Your task to perform on an android device: add a contact Image 0: 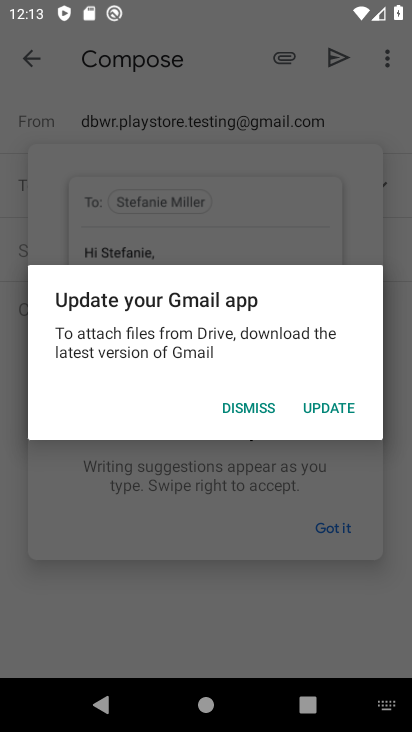
Step 0: press back button
Your task to perform on an android device: add a contact Image 1: 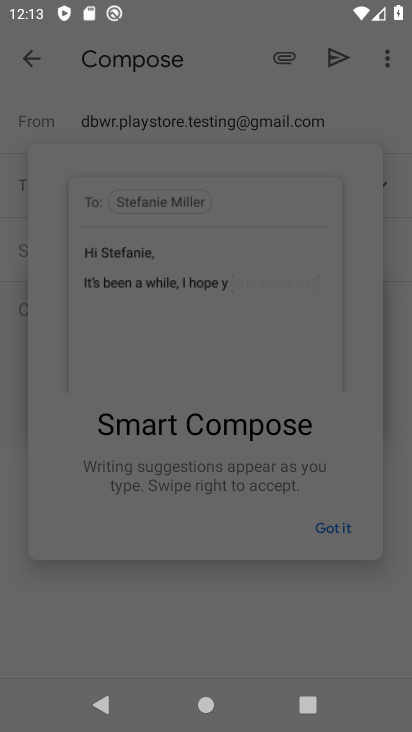
Step 1: press home button
Your task to perform on an android device: add a contact Image 2: 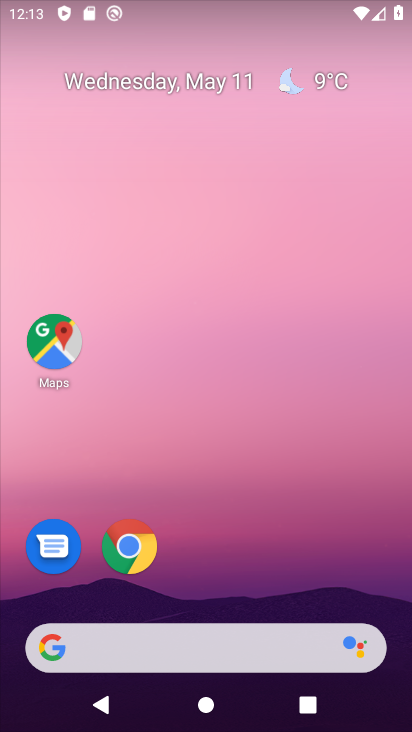
Step 2: drag from (214, 667) to (205, 10)
Your task to perform on an android device: add a contact Image 3: 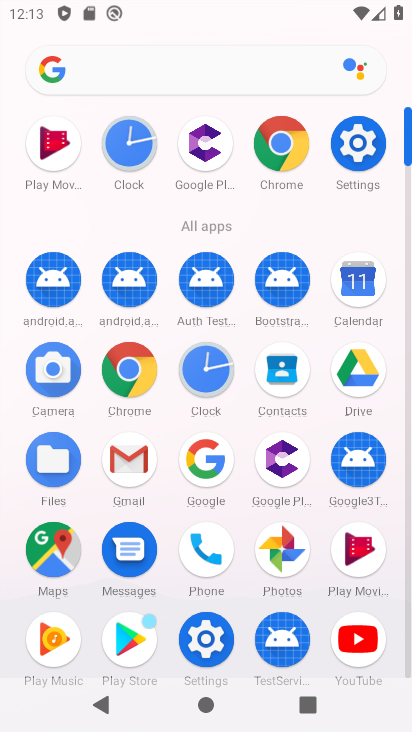
Step 3: click (272, 376)
Your task to perform on an android device: add a contact Image 4: 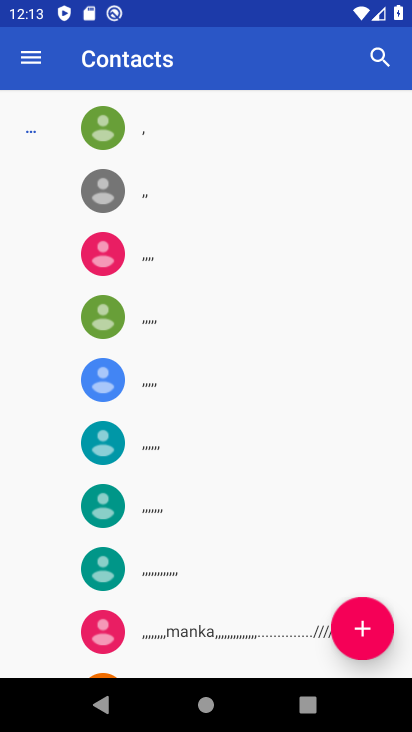
Step 4: task complete